Your task to perform on an android device: Is it going to rain this weekend? Image 0: 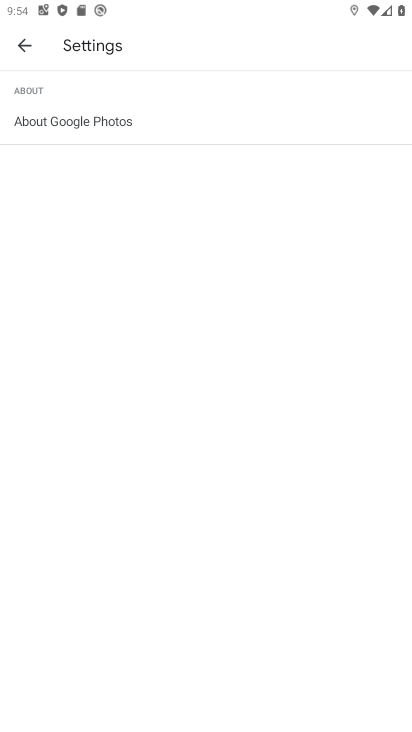
Step 0: press home button
Your task to perform on an android device: Is it going to rain this weekend? Image 1: 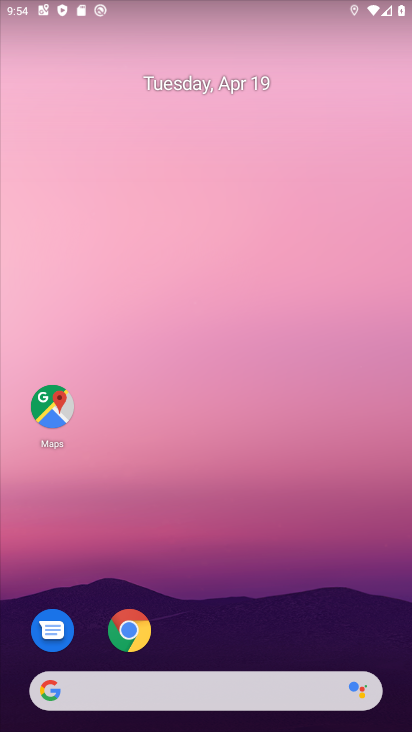
Step 1: click (124, 634)
Your task to perform on an android device: Is it going to rain this weekend? Image 2: 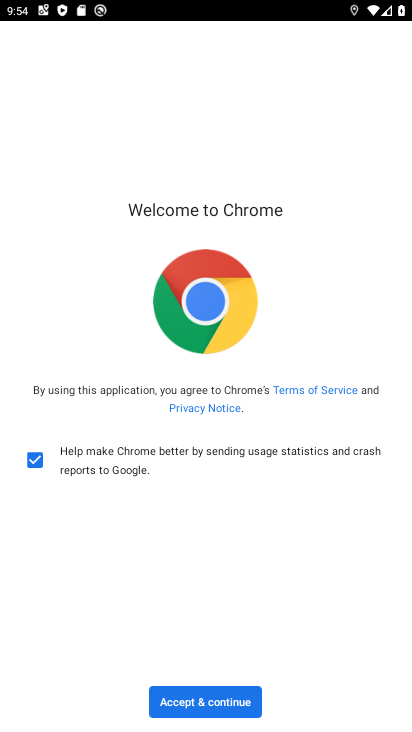
Step 2: click (178, 701)
Your task to perform on an android device: Is it going to rain this weekend? Image 3: 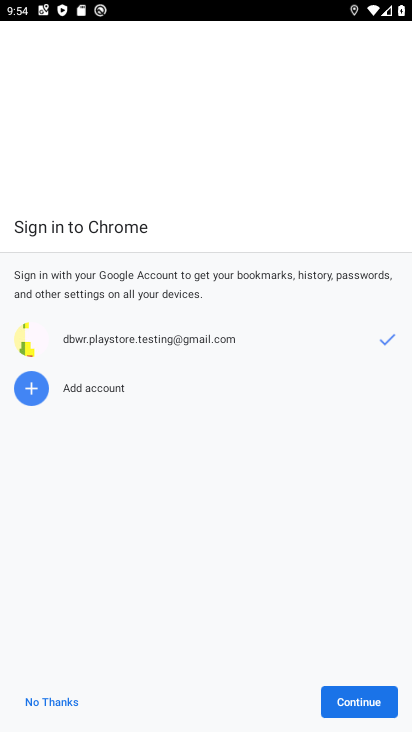
Step 3: click (350, 702)
Your task to perform on an android device: Is it going to rain this weekend? Image 4: 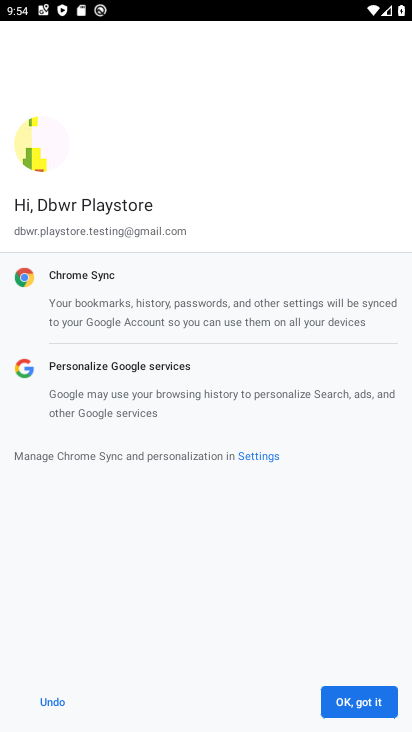
Step 4: click (336, 703)
Your task to perform on an android device: Is it going to rain this weekend? Image 5: 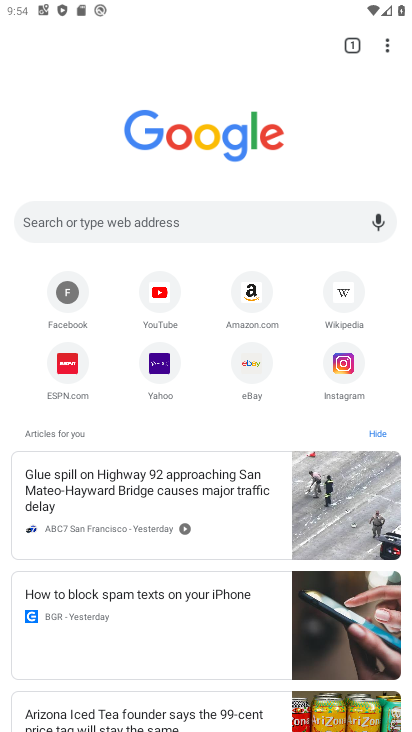
Step 5: click (129, 219)
Your task to perform on an android device: Is it going to rain this weekend? Image 6: 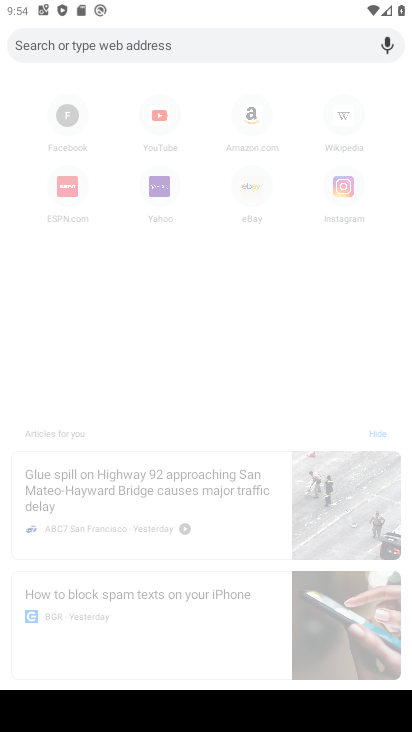
Step 6: type "is it going to rain this weekend"
Your task to perform on an android device: Is it going to rain this weekend? Image 7: 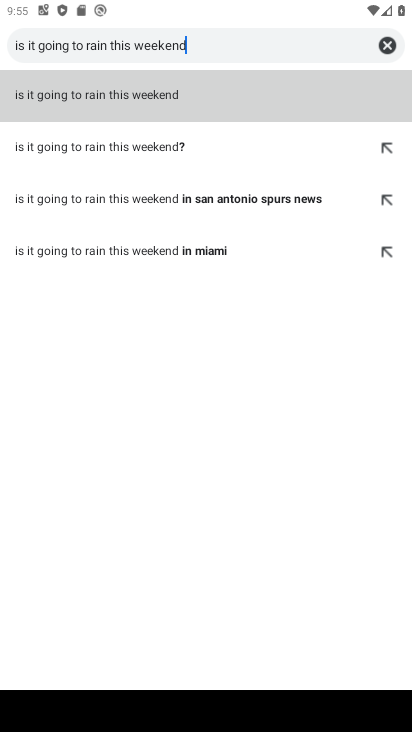
Step 7: click (143, 90)
Your task to perform on an android device: Is it going to rain this weekend? Image 8: 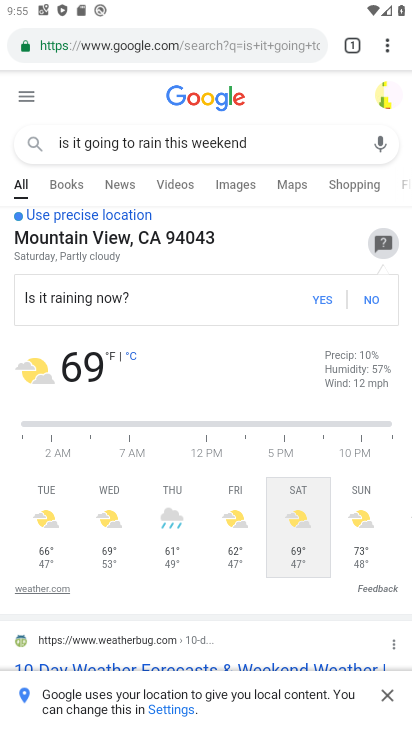
Step 8: task complete